Your task to perform on an android device: Open calendar and show me the second week of next month Image 0: 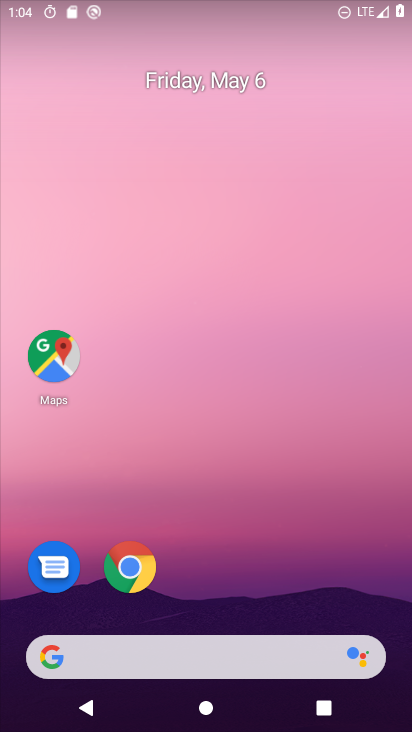
Step 0: drag from (335, 614) to (360, 14)
Your task to perform on an android device: Open calendar and show me the second week of next month Image 1: 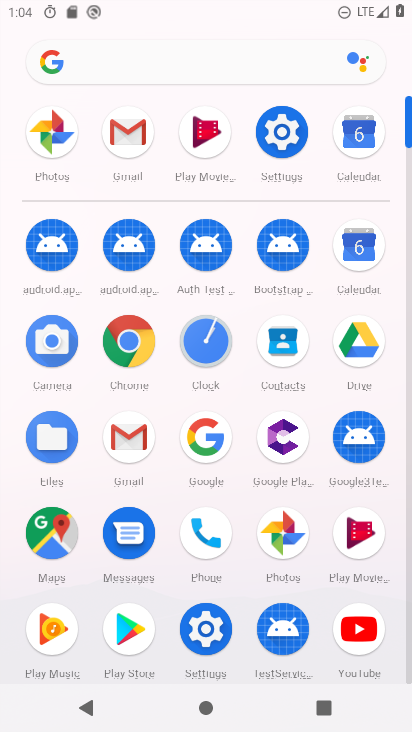
Step 1: click (351, 138)
Your task to perform on an android device: Open calendar and show me the second week of next month Image 2: 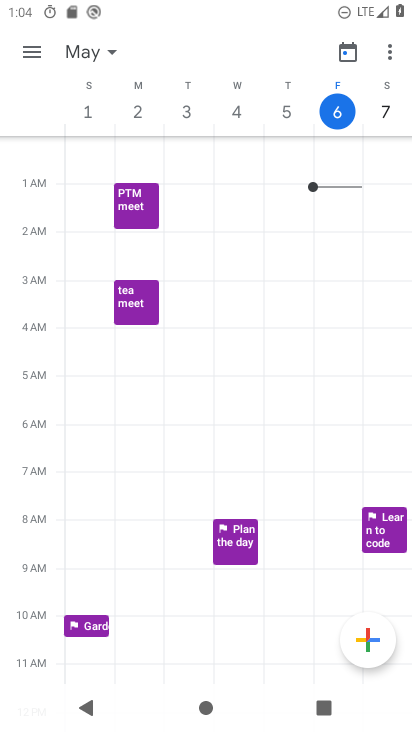
Step 2: click (110, 49)
Your task to perform on an android device: Open calendar and show me the second week of next month Image 3: 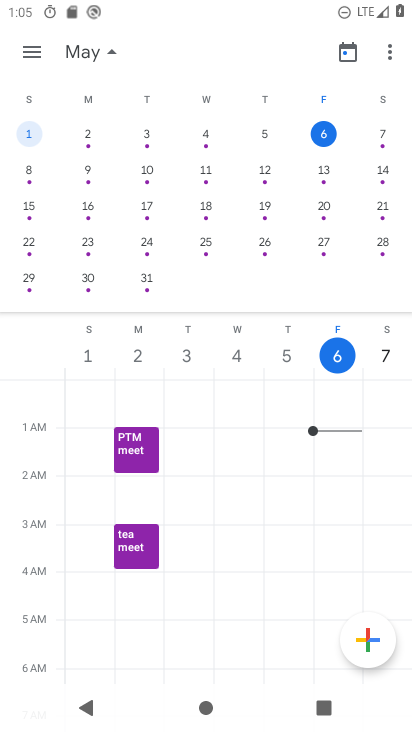
Step 3: drag from (266, 183) to (2, 82)
Your task to perform on an android device: Open calendar and show me the second week of next month Image 4: 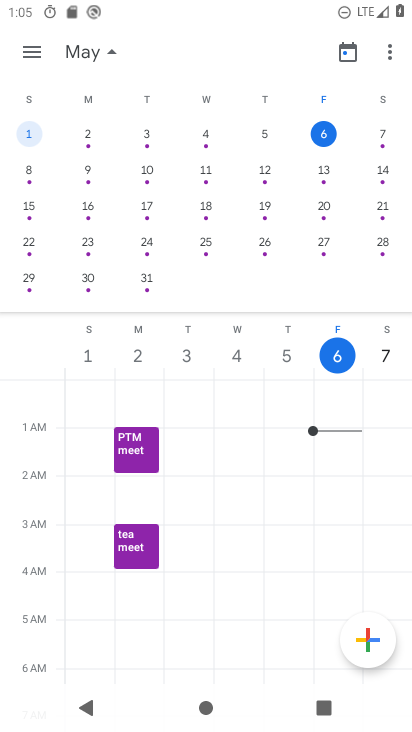
Step 4: drag from (338, 204) to (1, 187)
Your task to perform on an android device: Open calendar and show me the second week of next month Image 5: 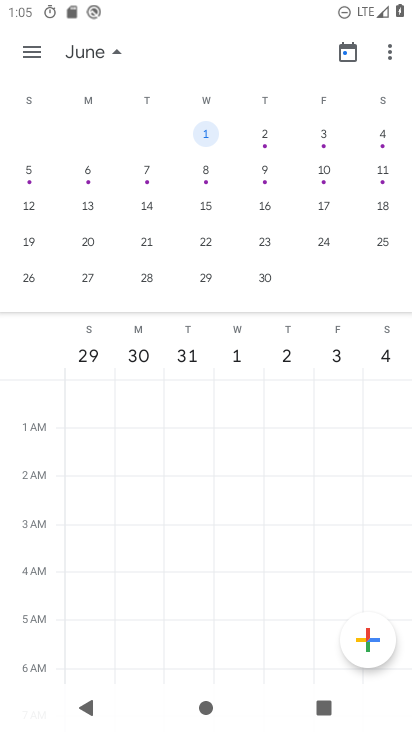
Step 5: click (29, 56)
Your task to perform on an android device: Open calendar and show me the second week of next month Image 6: 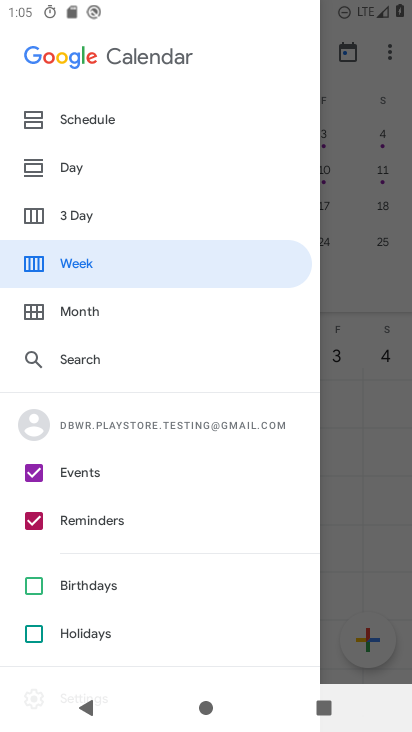
Step 6: click (119, 271)
Your task to perform on an android device: Open calendar and show me the second week of next month Image 7: 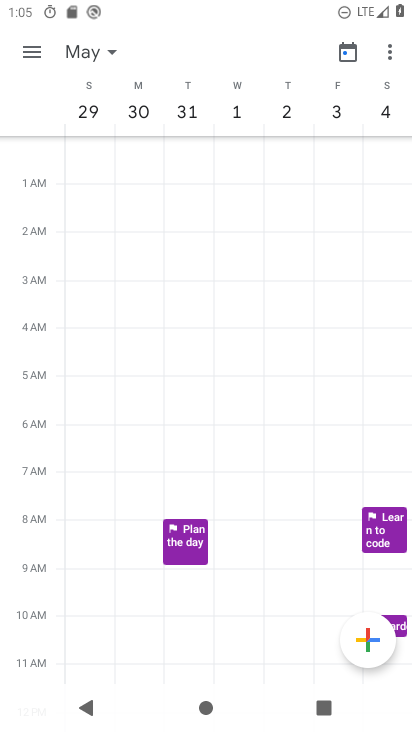
Step 7: task complete